Your task to perform on an android device: turn on airplane mode Image 0: 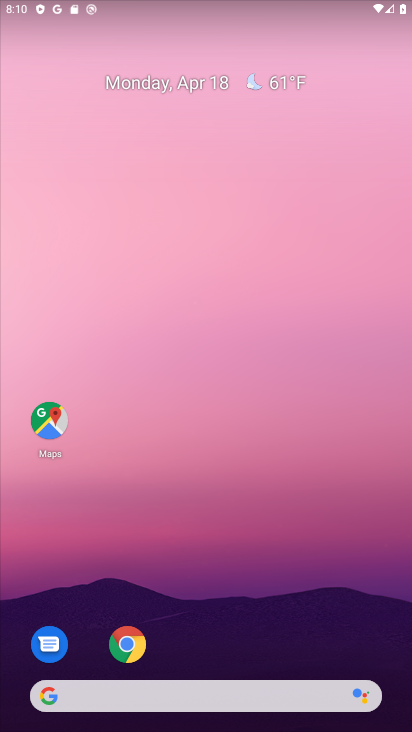
Step 0: drag from (222, 689) to (173, 18)
Your task to perform on an android device: turn on airplane mode Image 1: 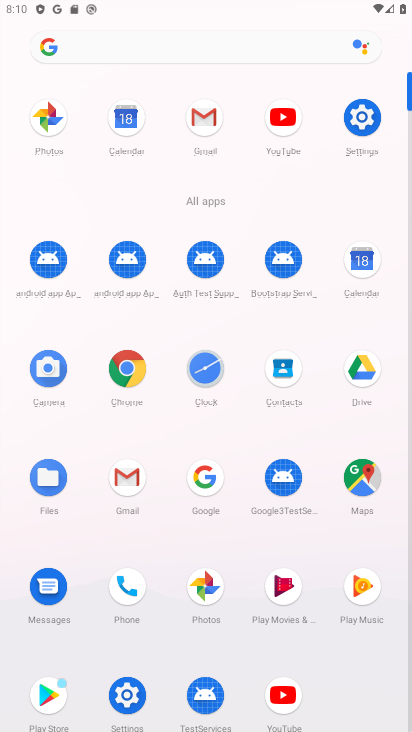
Step 1: click (130, 695)
Your task to perform on an android device: turn on airplane mode Image 2: 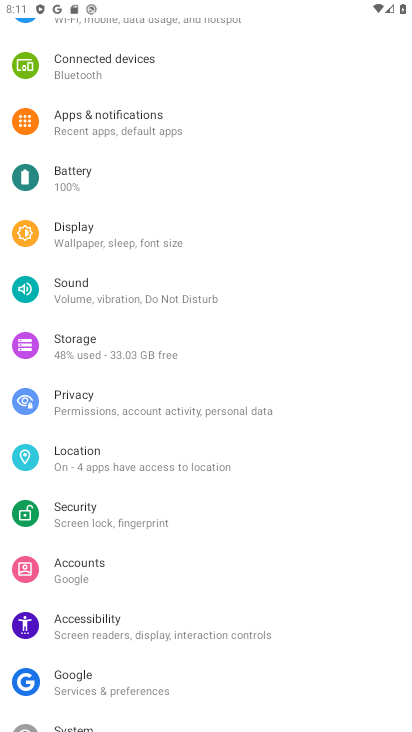
Step 2: drag from (159, 88) to (265, 576)
Your task to perform on an android device: turn on airplane mode Image 3: 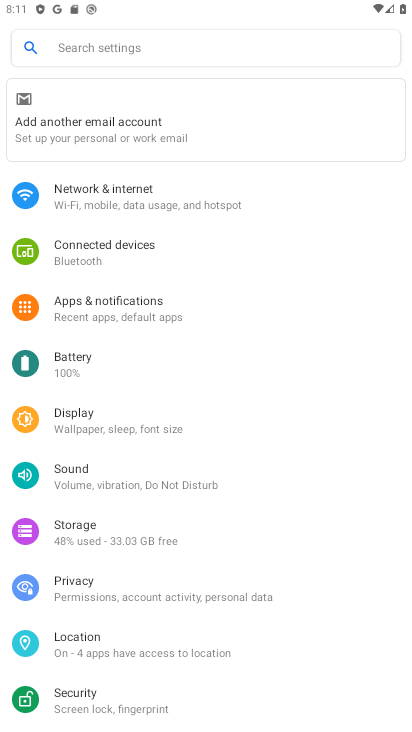
Step 3: click (158, 178)
Your task to perform on an android device: turn on airplane mode Image 4: 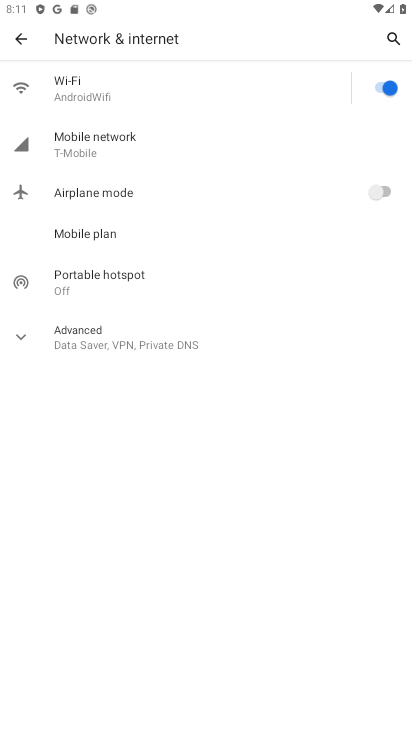
Step 4: click (377, 195)
Your task to perform on an android device: turn on airplane mode Image 5: 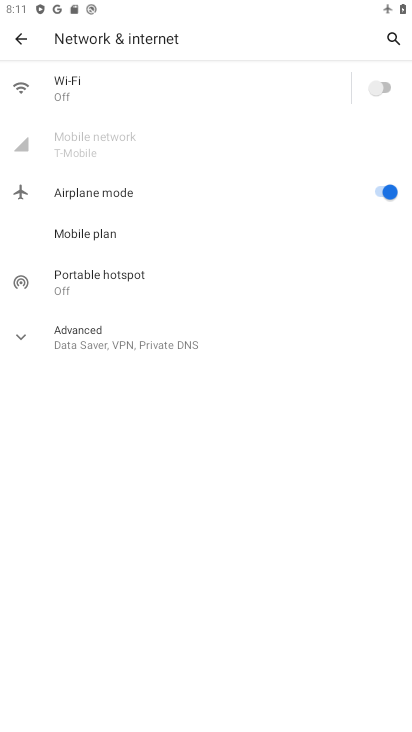
Step 5: task complete